Your task to perform on an android device: toggle notifications settings in the gmail app Image 0: 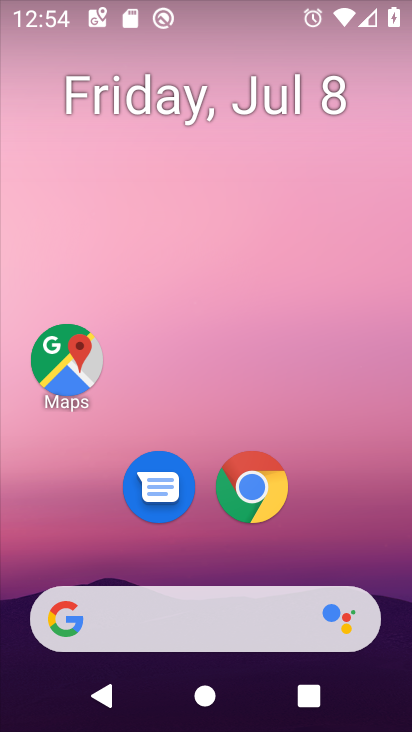
Step 0: drag from (375, 540) to (381, 114)
Your task to perform on an android device: toggle notifications settings in the gmail app Image 1: 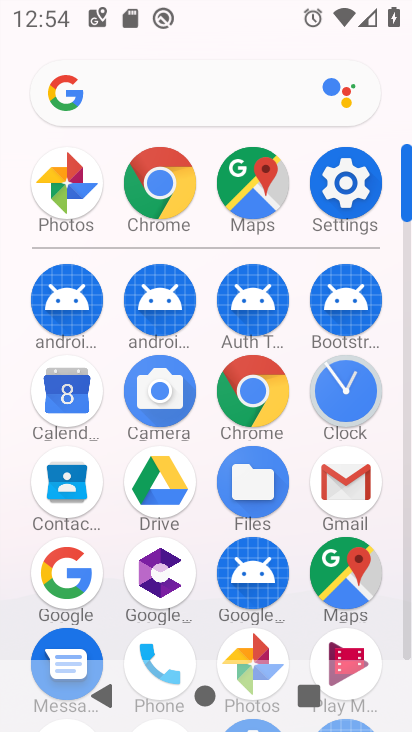
Step 1: click (344, 477)
Your task to perform on an android device: toggle notifications settings in the gmail app Image 2: 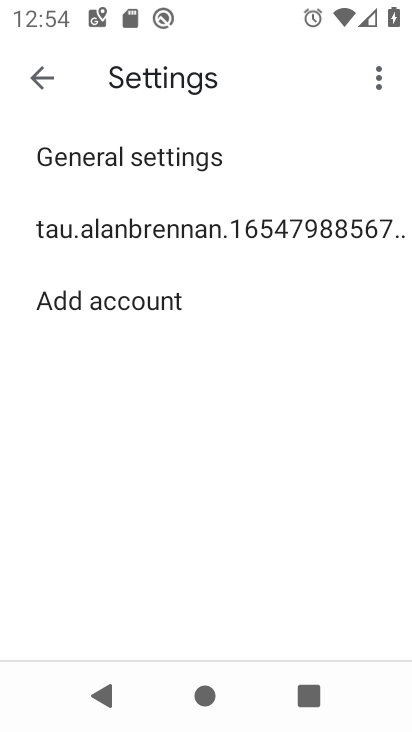
Step 2: click (320, 229)
Your task to perform on an android device: toggle notifications settings in the gmail app Image 3: 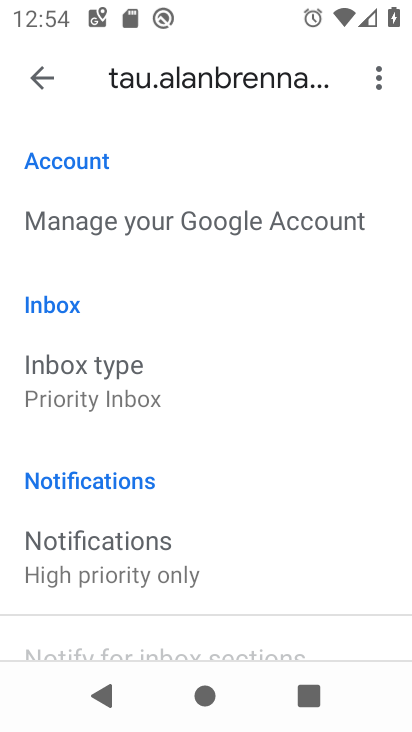
Step 3: drag from (319, 476) to (333, 368)
Your task to perform on an android device: toggle notifications settings in the gmail app Image 4: 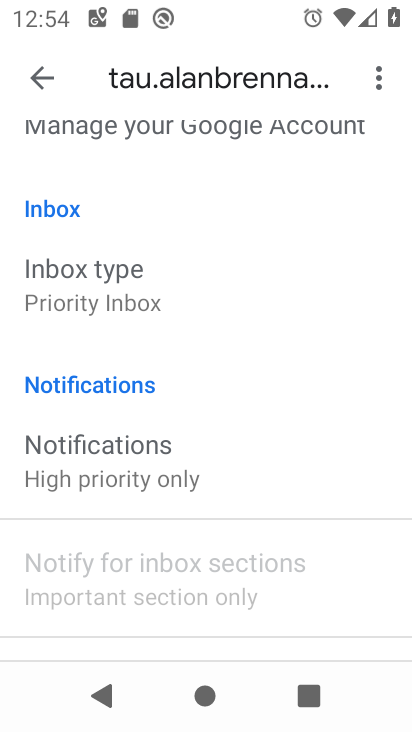
Step 4: drag from (320, 444) to (320, 367)
Your task to perform on an android device: toggle notifications settings in the gmail app Image 5: 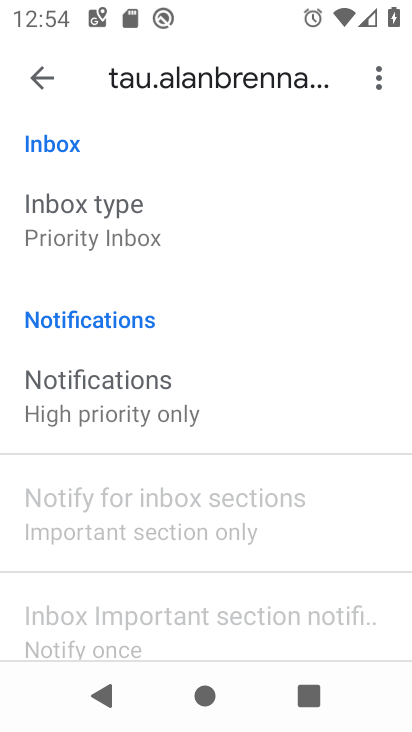
Step 5: drag from (318, 517) to (314, 400)
Your task to perform on an android device: toggle notifications settings in the gmail app Image 6: 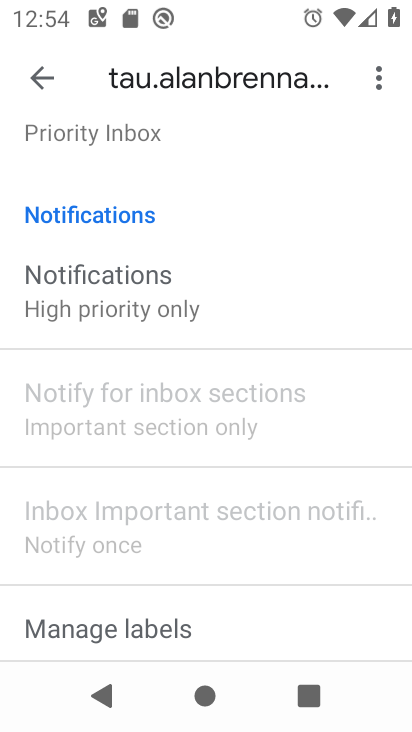
Step 6: click (232, 322)
Your task to perform on an android device: toggle notifications settings in the gmail app Image 7: 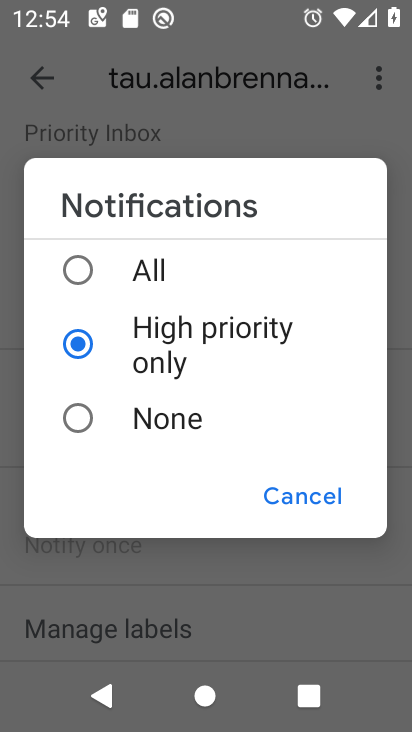
Step 7: click (155, 269)
Your task to perform on an android device: toggle notifications settings in the gmail app Image 8: 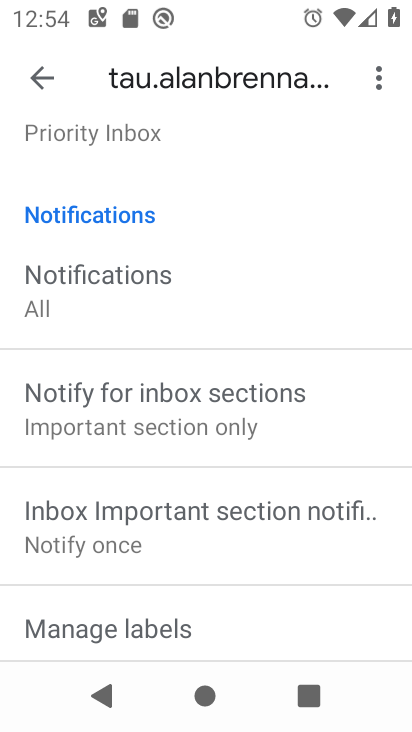
Step 8: task complete